Your task to perform on an android device: Do I have any events today? Image 0: 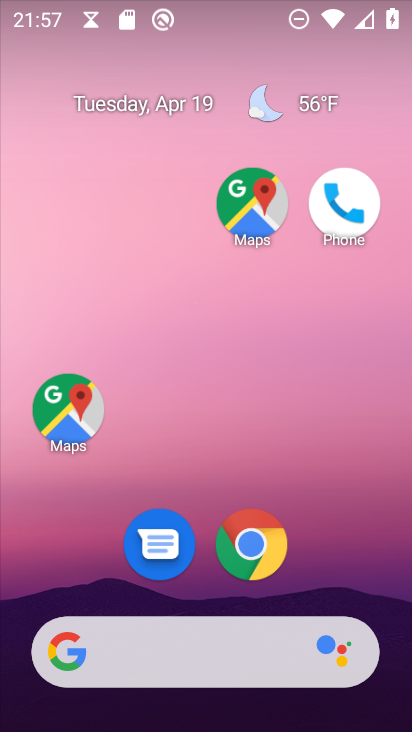
Step 0: drag from (140, 647) to (291, 110)
Your task to perform on an android device: Do I have any events today? Image 1: 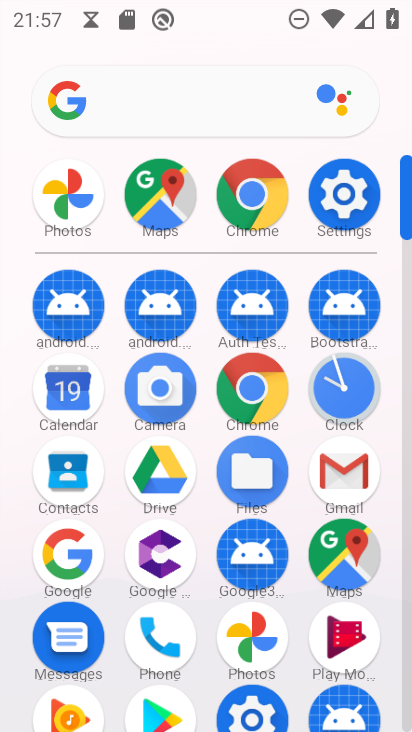
Step 1: click (79, 408)
Your task to perform on an android device: Do I have any events today? Image 2: 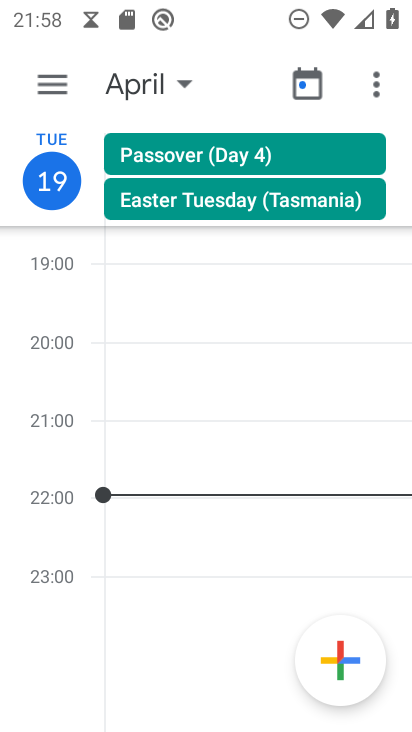
Step 2: click (133, 79)
Your task to perform on an android device: Do I have any events today? Image 3: 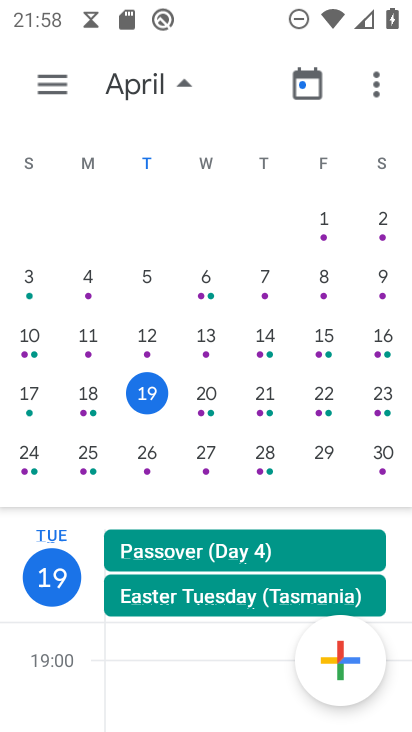
Step 3: click (61, 86)
Your task to perform on an android device: Do I have any events today? Image 4: 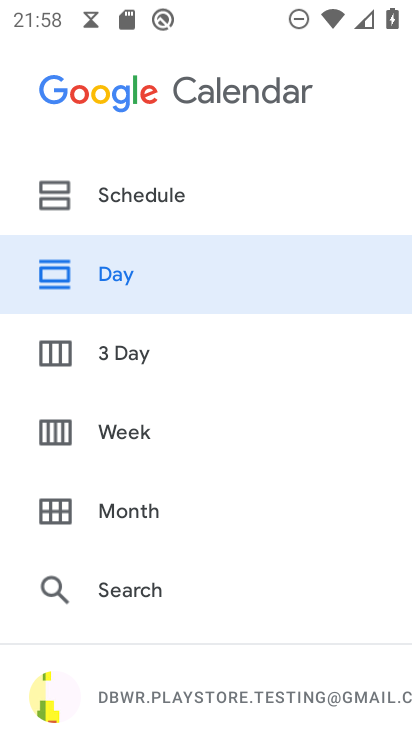
Step 4: click (150, 193)
Your task to perform on an android device: Do I have any events today? Image 5: 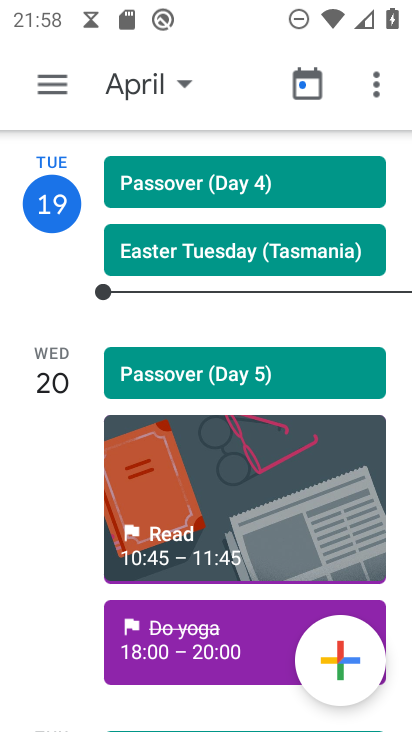
Step 5: task complete